Your task to perform on an android device: Open the phone app and click the voicemail tab. Image 0: 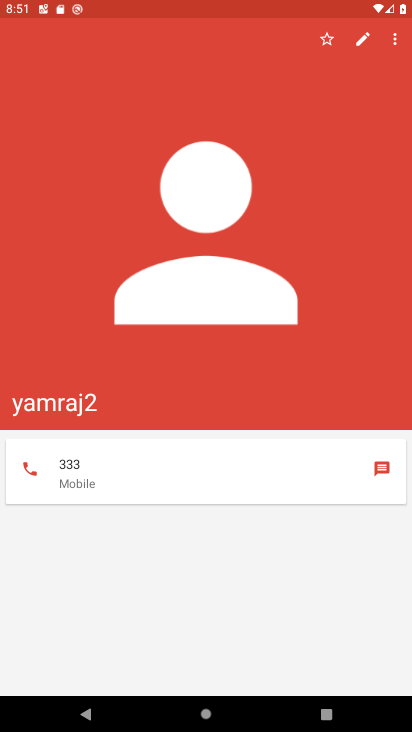
Step 0: press home button
Your task to perform on an android device: Open the phone app and click the voicemail tab. Image 1: 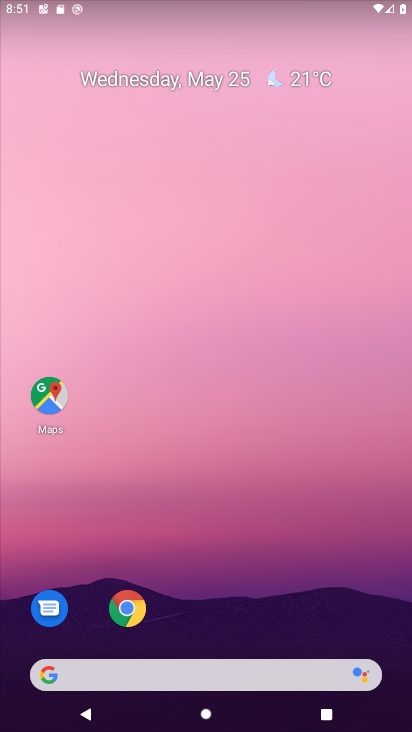
Step 1: drag from (237, 719) to (232, 176)
Your task to perform on an android device: Open the phone app and click the voicemail tab. Image 2: 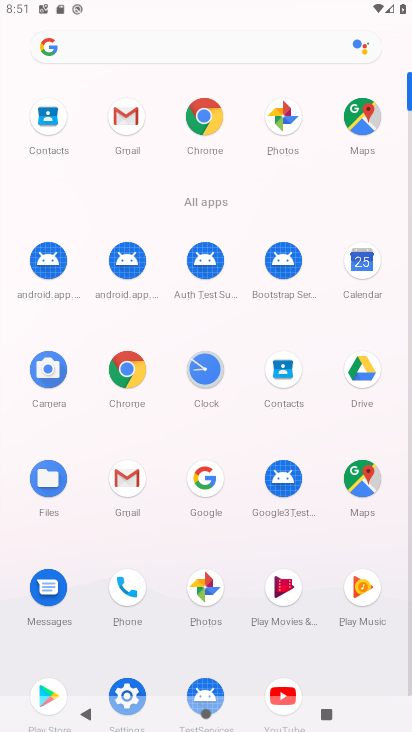
Step 2: click (121, 586)
Your task to perform on an android device: Open the phone app and click the voicemail tab. Image 3: 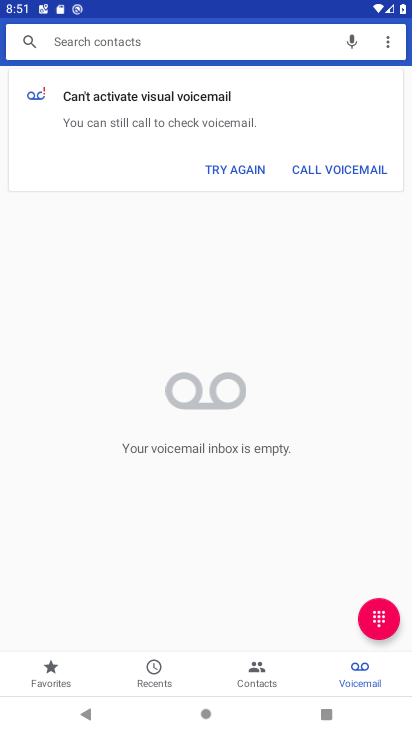
Step 3: click (364, 679)
Your task to perform on an android device: Open the phone app and click the voicemail tab. Image 4: 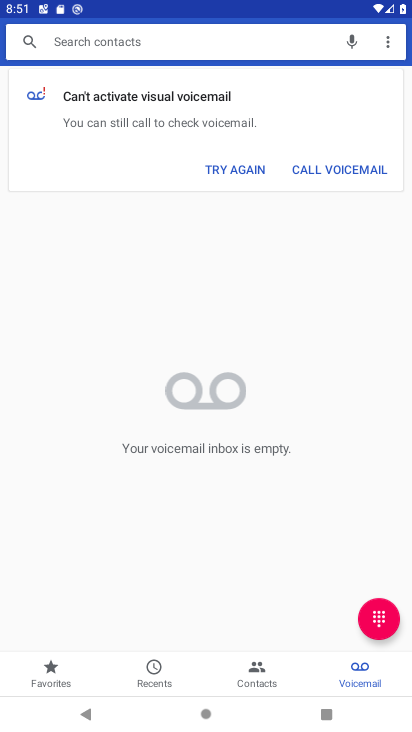
Step 4: task complete